Your task to perform on an android device: turn off data saver in the chrome app Image 0: 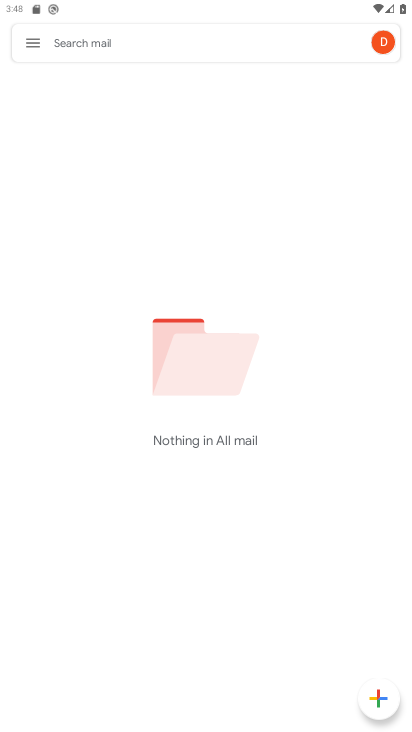
Step 0: press home button
Your task to perform on an android device: turn off data saver in the chrome app Image 1: 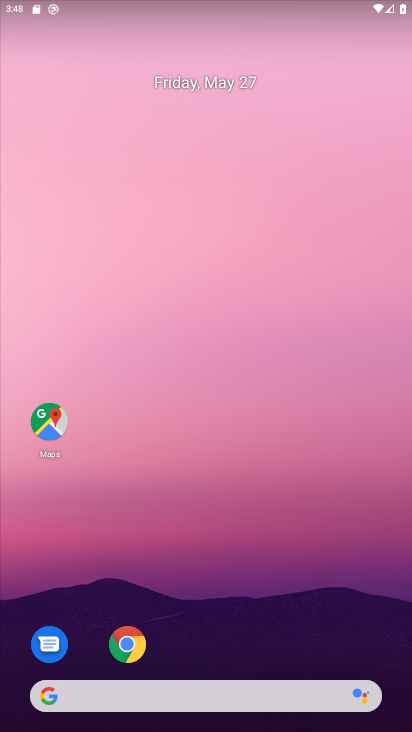
Step 1: click (126, 652)
Your task to perform on an android device: turn off data saver in the chrome app Image 2: 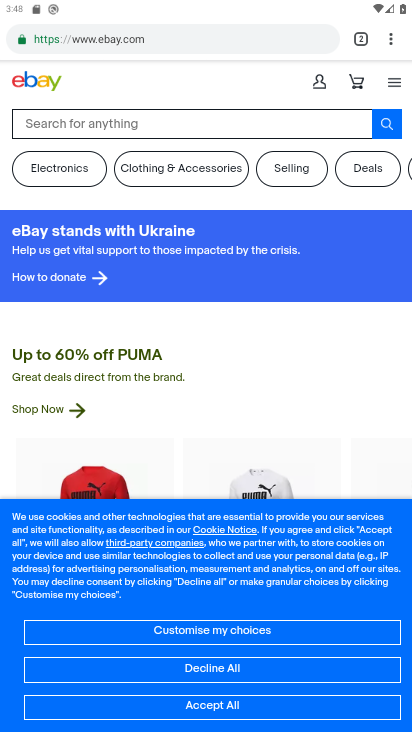
Step 2: click (391, 42)
Your task to perform on an android device: turn off data saver in the chrome app Image 3: 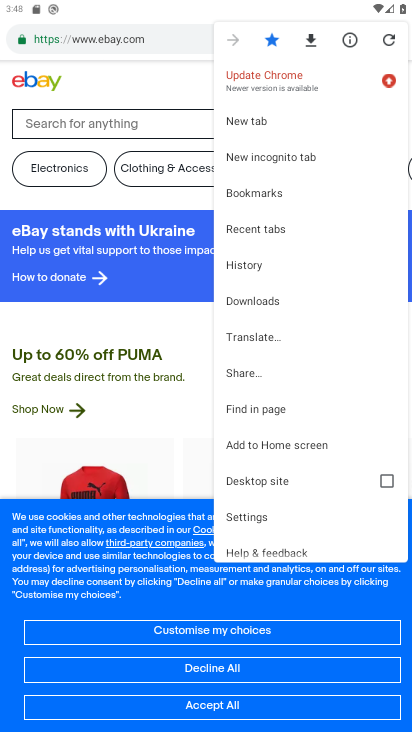
Step 3: click (266, 516)
Your task to perform on an android device: turn off data saver in the chrome app Image 4: 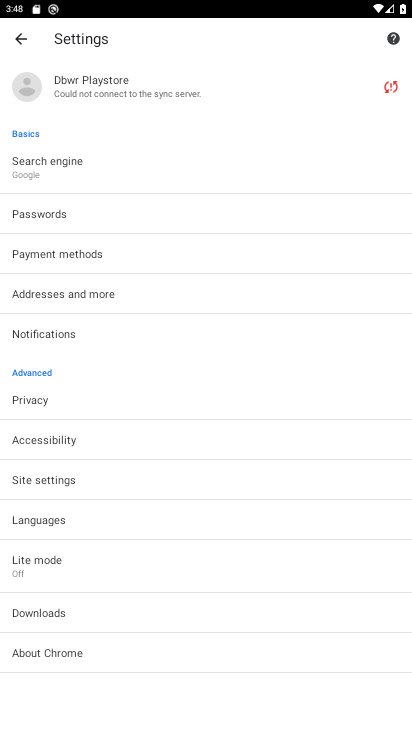
Step 4: click (86, 563)
Your task to perform on an android device: turn off data saver in the chrome app Image 5: 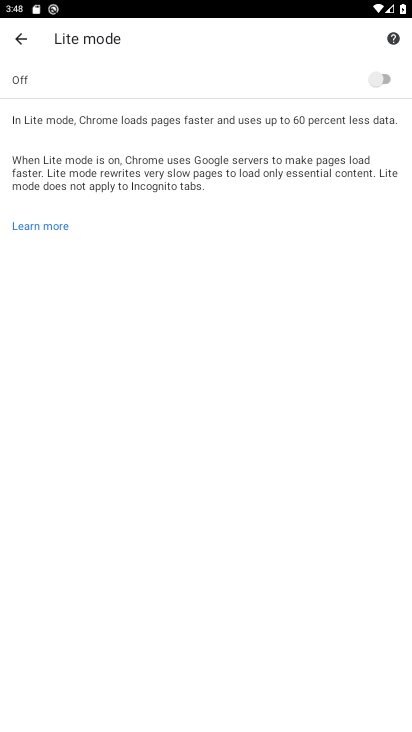
Step 5: task complete